Your task to perform on an android device: Open the stopwatch Image 0: 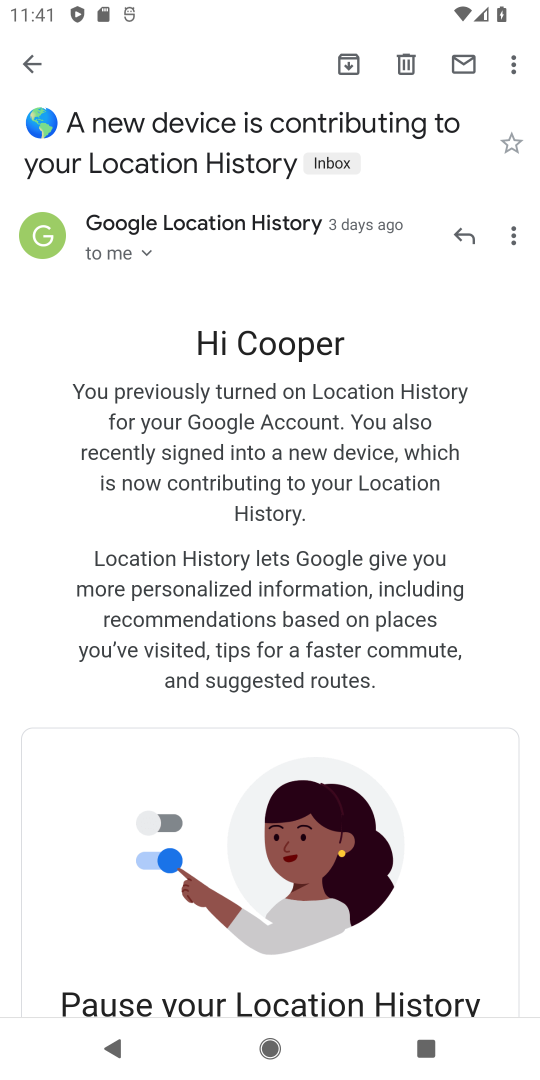
Step 0: press home button
Your task to perform on an android device: Open the stopwatch Image 1: 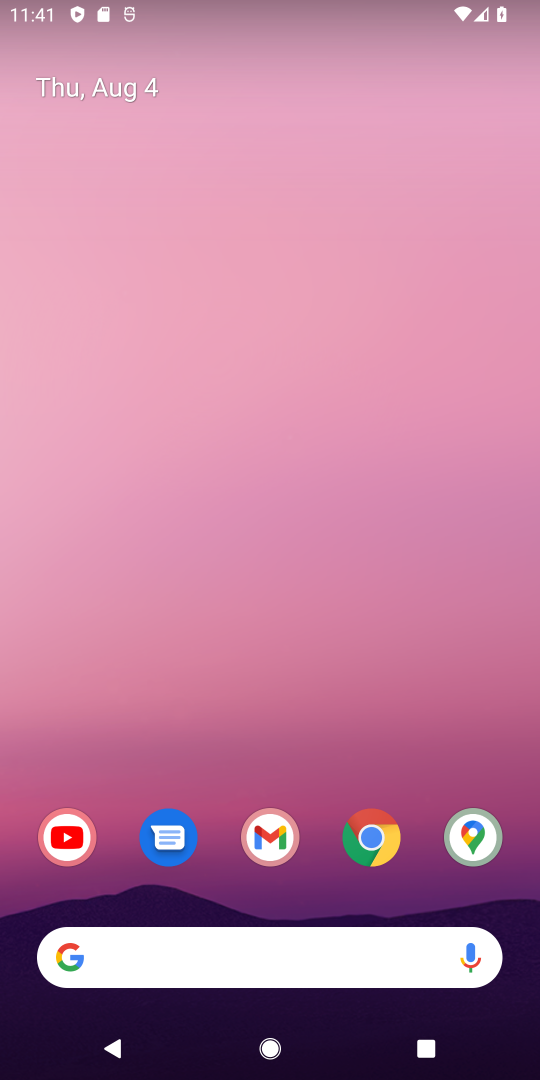
Step 1: drag from (312, 903) to (272, 36)
Your task to perform on an android device: Open the stopwatch Image 2: 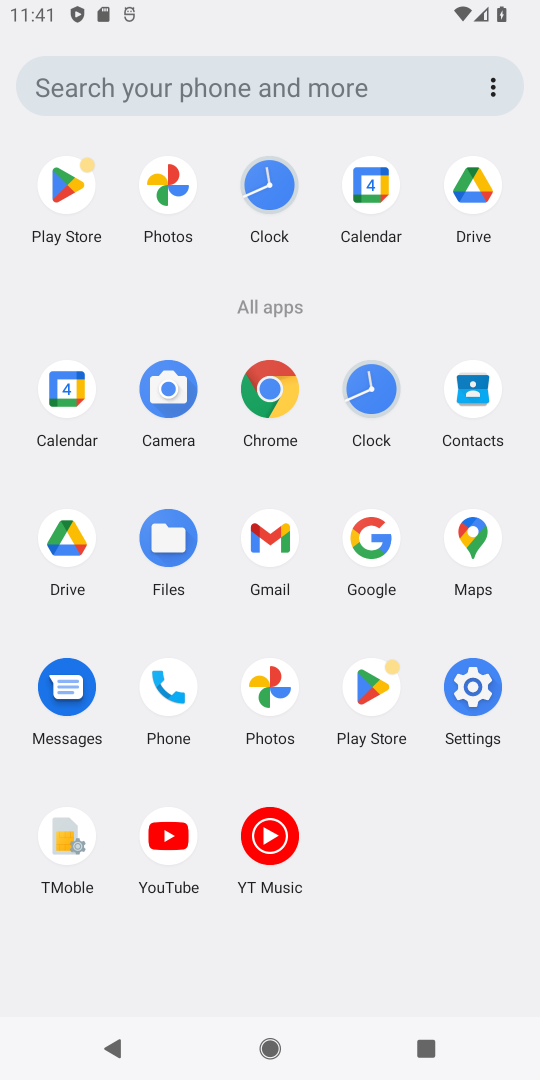
Step 2: click (362, 373)
Your task to perform on an android device: Open the stopwatch Image 3: 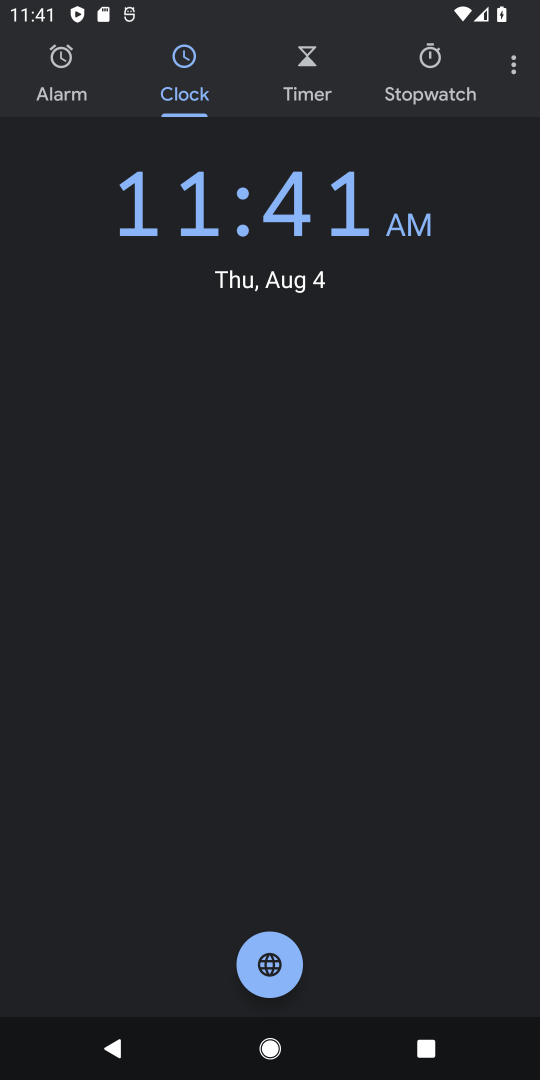
Step 3: click (424, 81)
Your task to perform on an android device: Open the stopwatch Image 4: 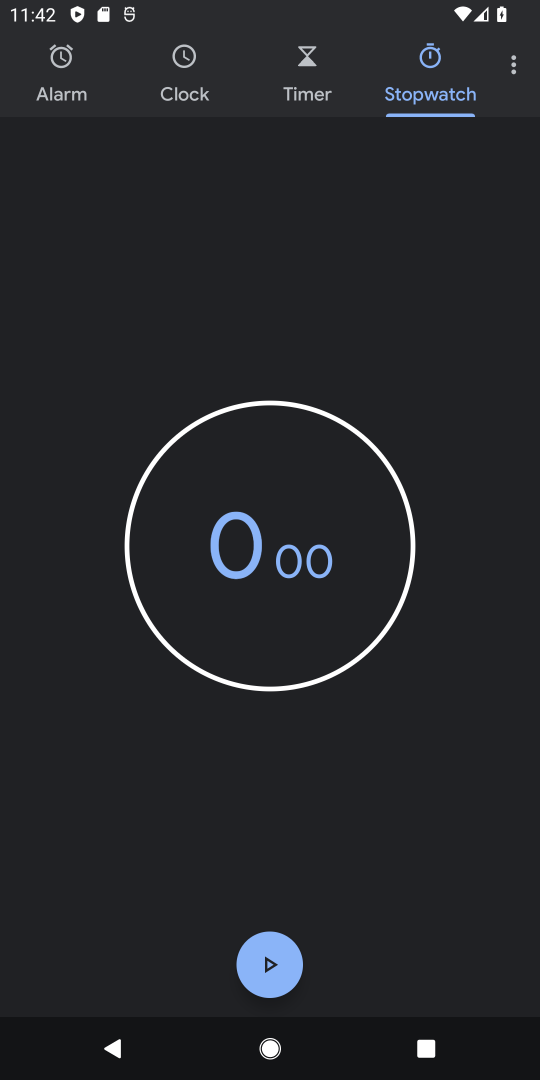
Step 4: task complete